Your task to perform on an android device: open a new tab in the chrome app Image 0: 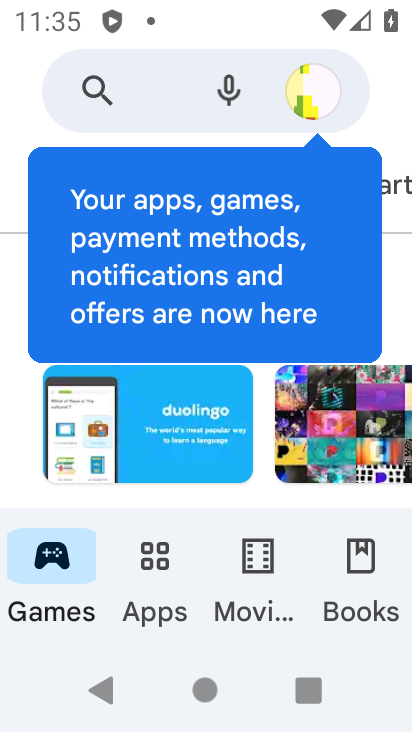
Step 0: press back button
Your task to perform on an android device: open a new tab in the chrome app Image 1: 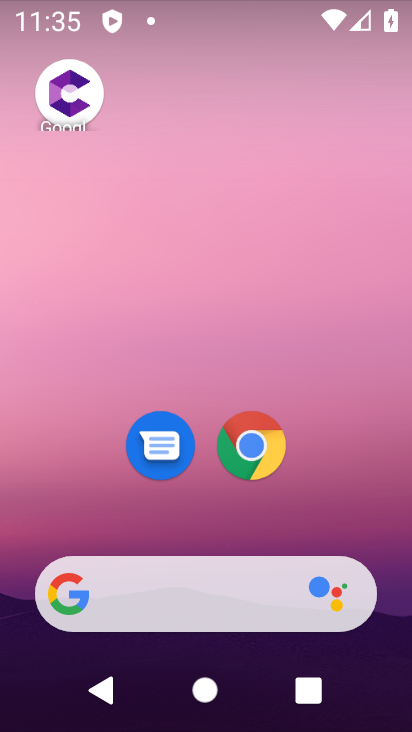
Step 1: drag from (270, 613) to (233, 153)
Your task to perform on an android device: open a new tab in the chrome app Image 2: 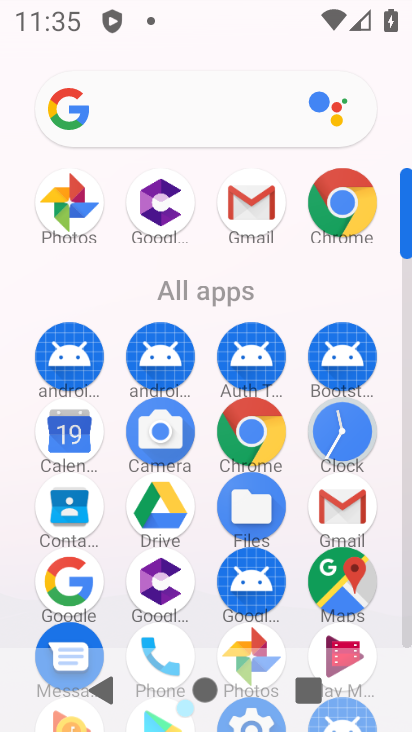
Step 2: click (342, 195)
Your task to perform on an android device: open a new tab in the chrome app Image 3: 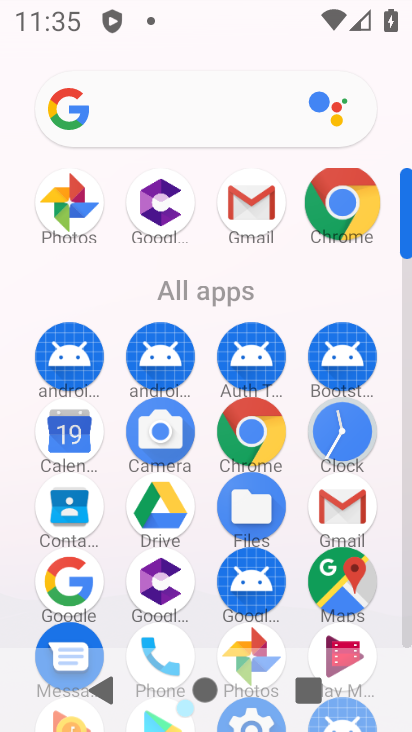
Step 3: click (342, 195)
Your task to perform on an android device: open a new tab in the chrome app Image 4: 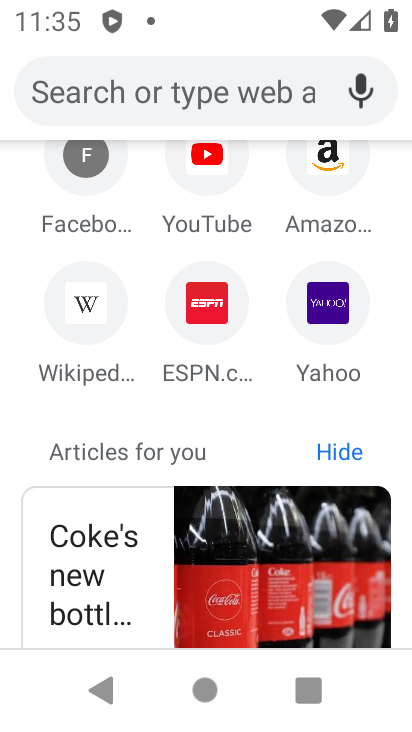
Step 4: task complete